Your task to perform on an android device: Open the map Image 0: 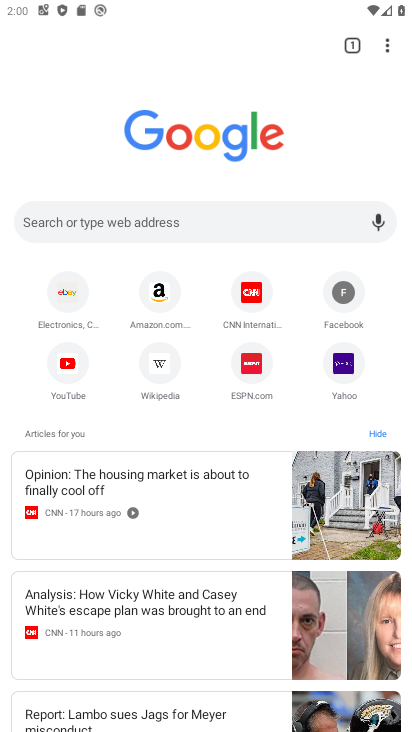
Step 0: press home button
Your task to perform on an android device: Open the map Image 1: 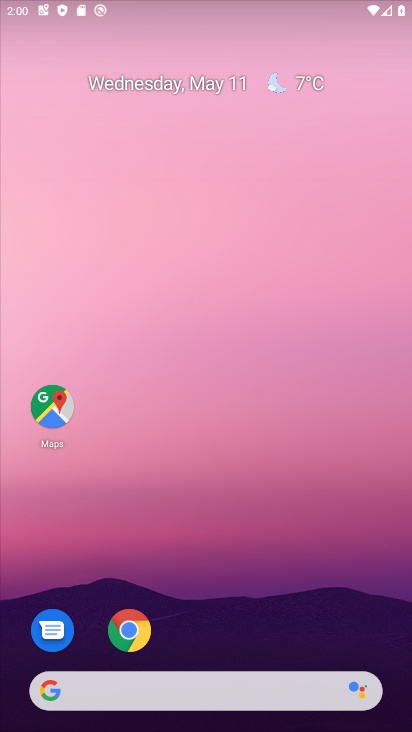
Step 1: drag from (397, 650) to (294, 97)
Your task to perform on an android device: Open the map Image 2: 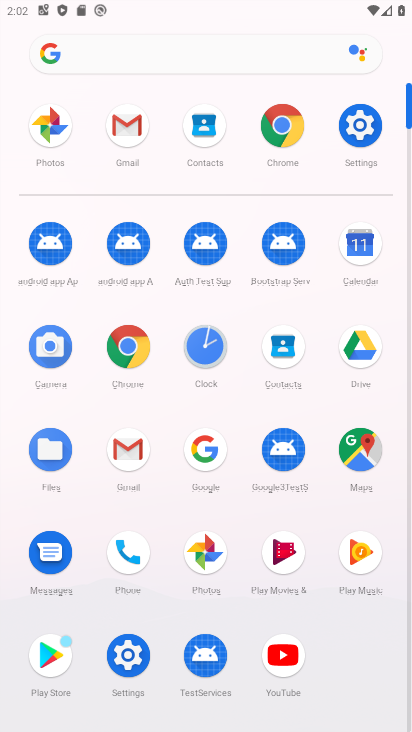
Step 2: click (367, 451)
Your task to perform on an android device: Open the map Image 3: 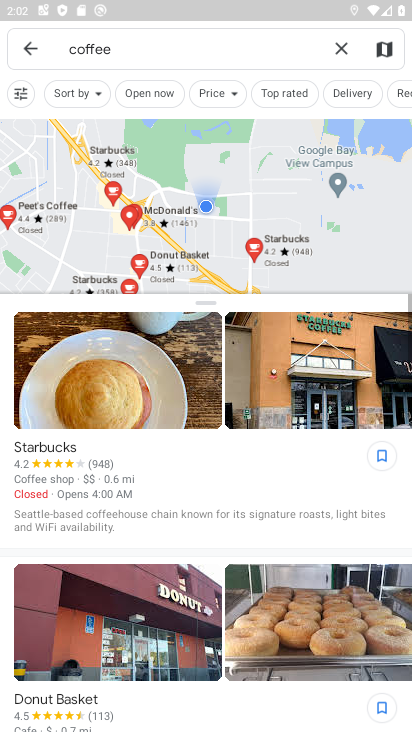
Step 3: click (336, 45)
Your task to perform on an android device: Open the map Image 4: 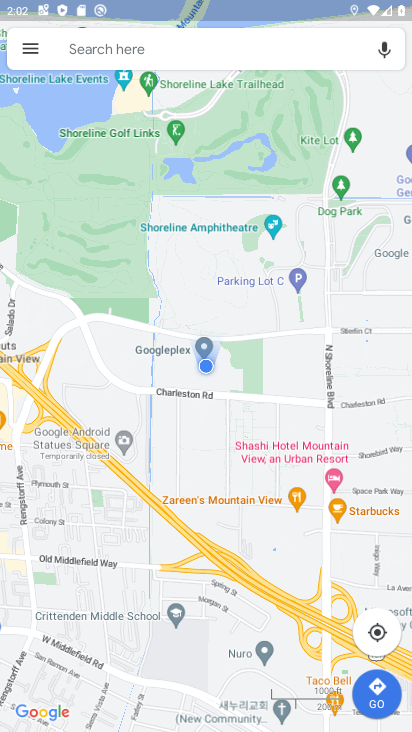
Step 4: task complete